Your task to perform on an android device: Go to Maps Image 0: 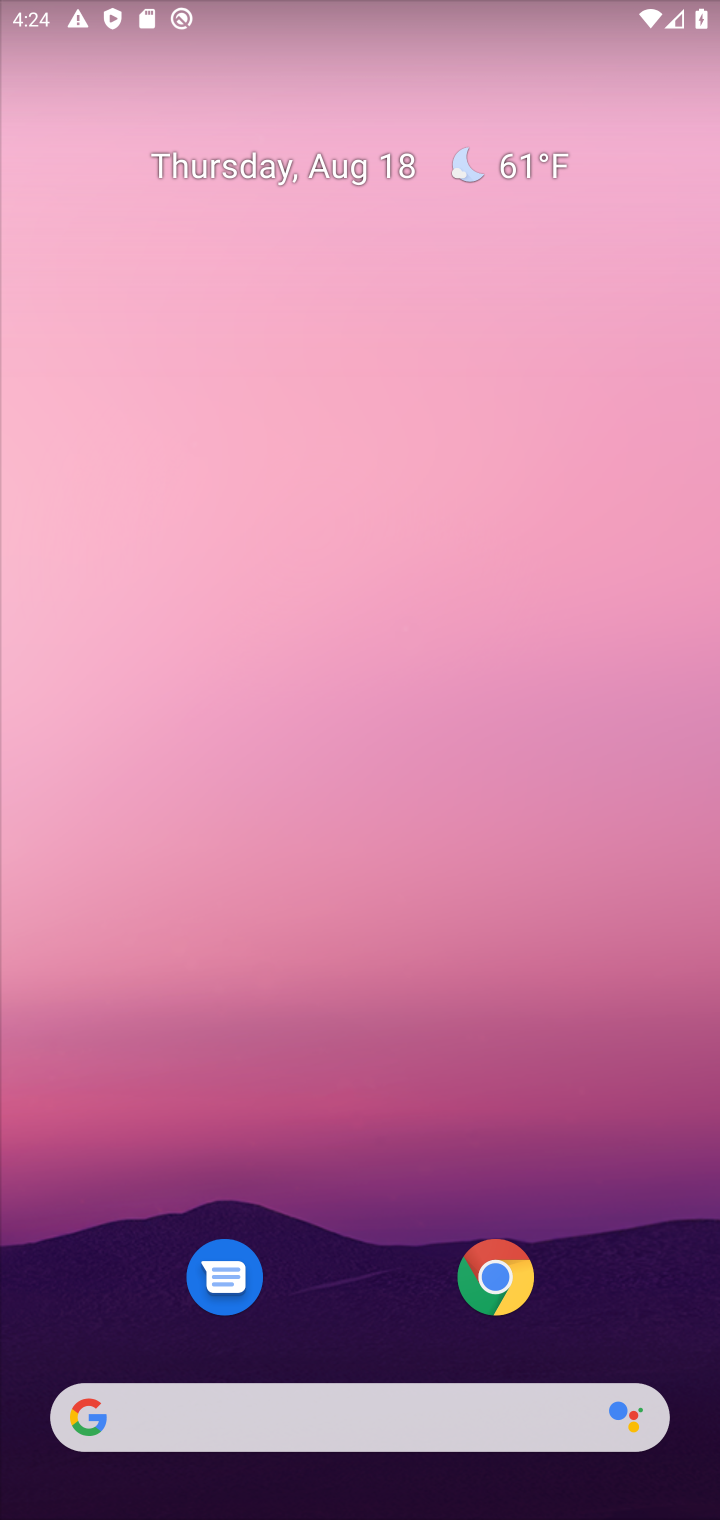
Step 0: drag from (385, 827) to (502, 203)
Your task to perform on an android device: Go to Maps Image 1: 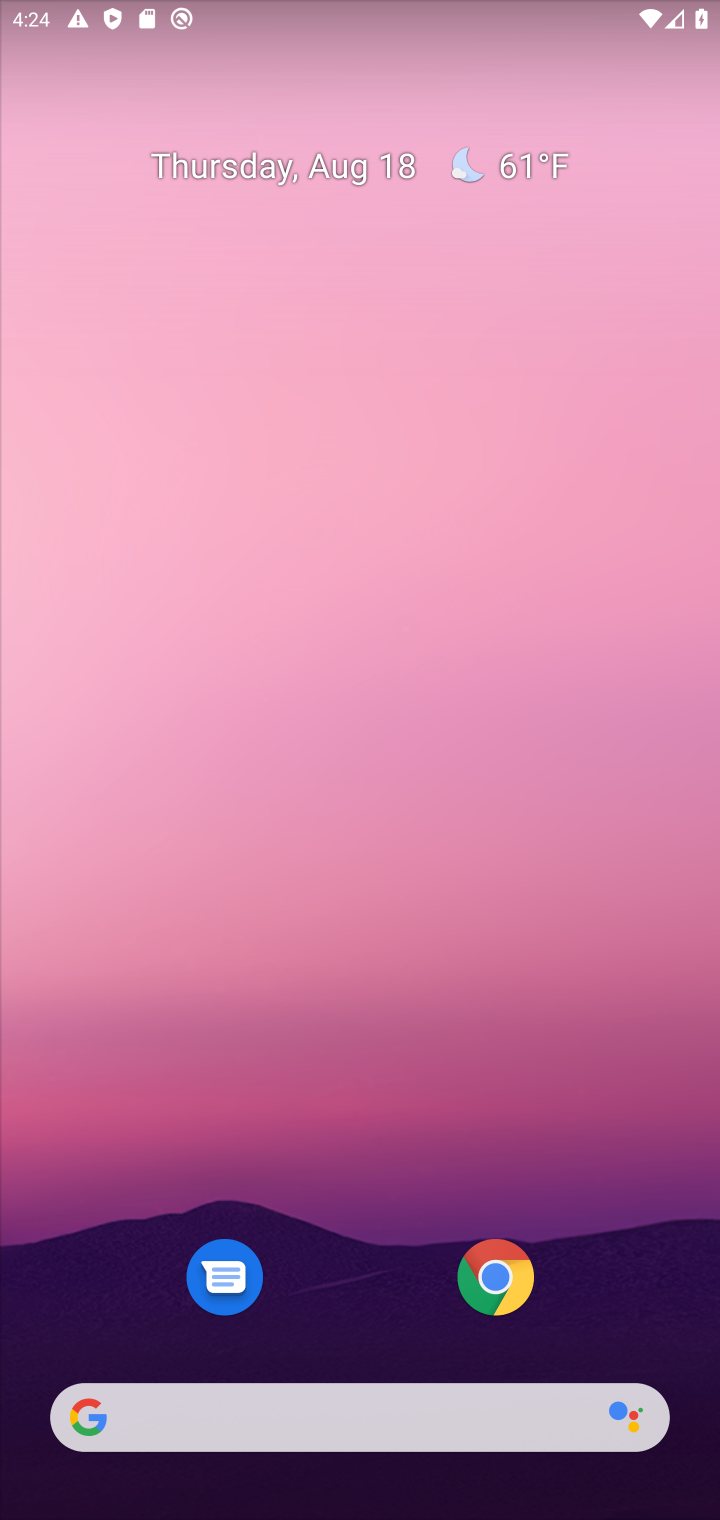
Step 1: drag from (295, 1018) to (584, 242)
Your task to perform on an android device: Go to Maps Image 2: 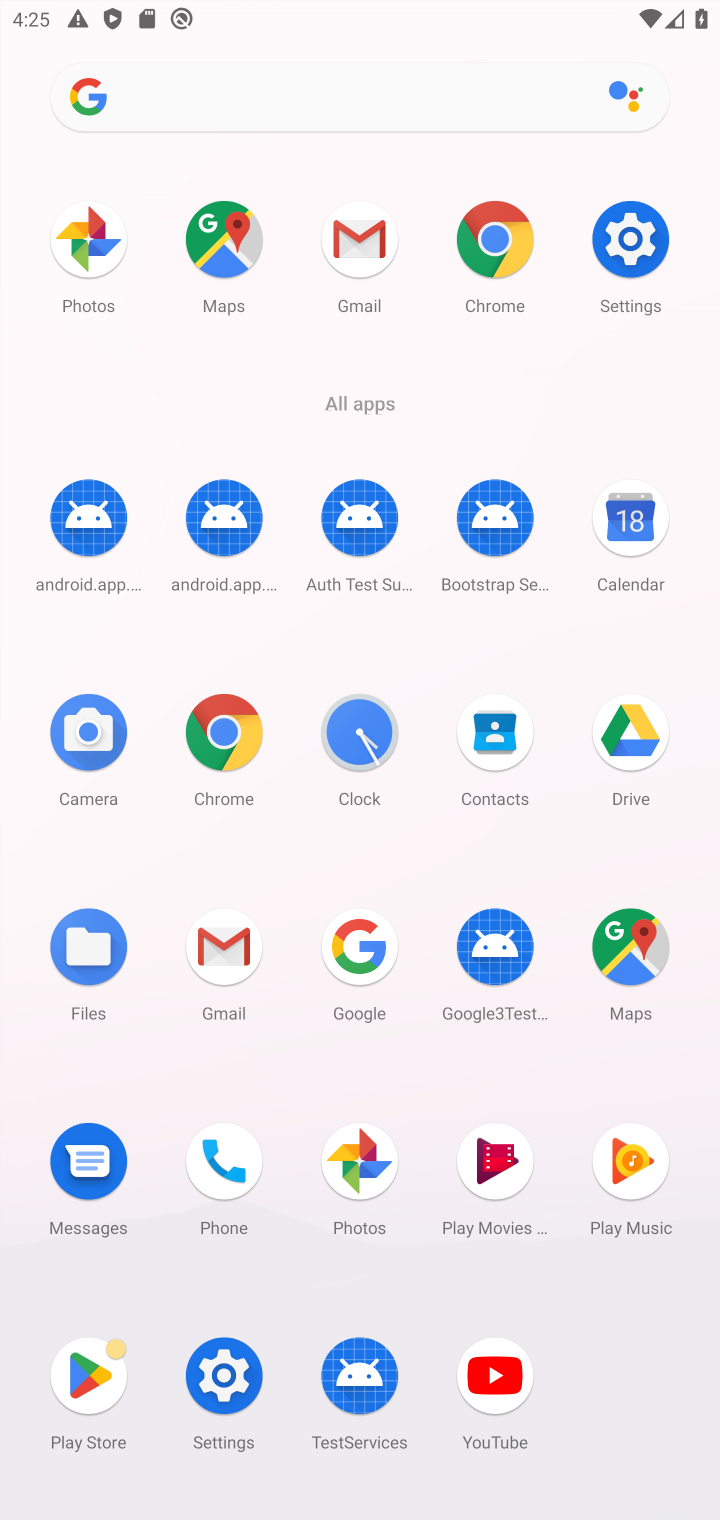
Step 2: click (243, 260)
Your task to perform on an android device: Go to Maps Image 3: 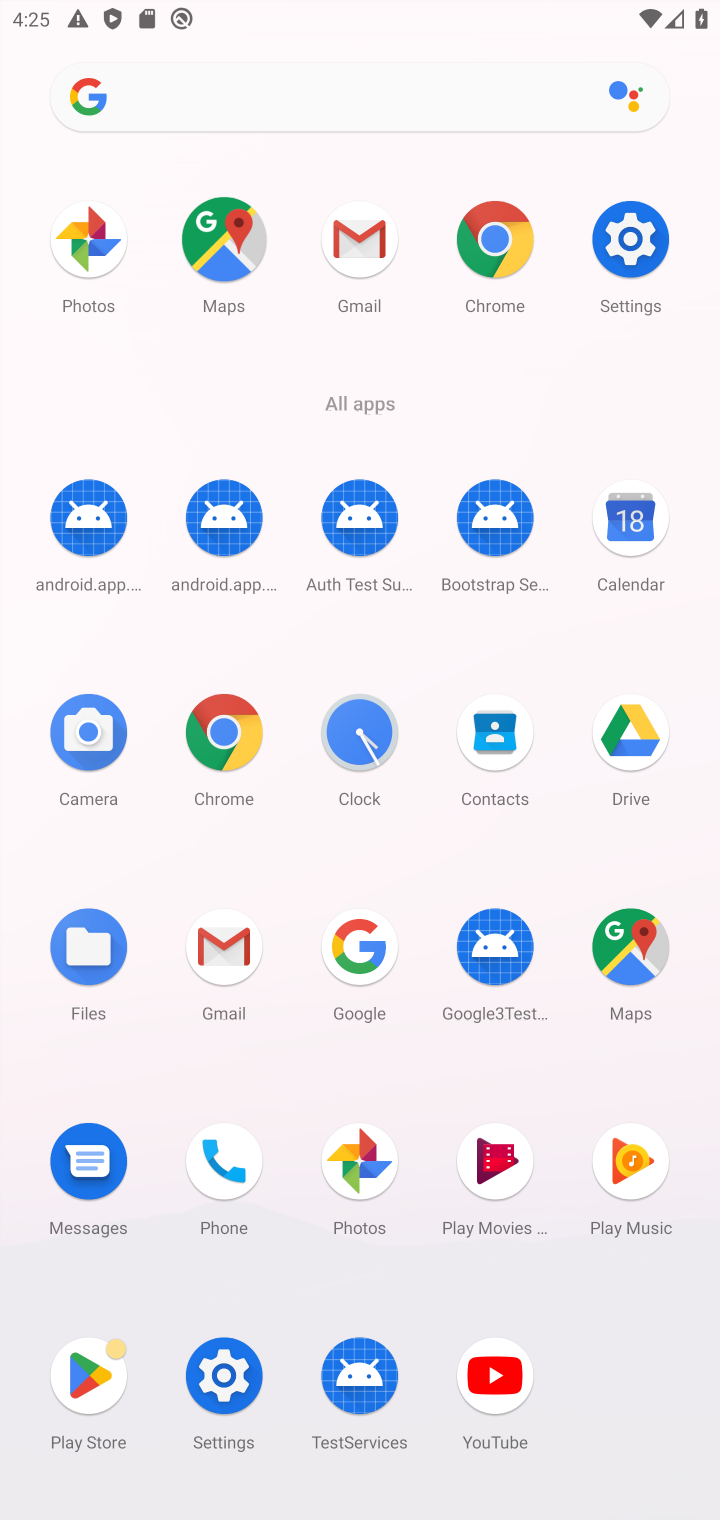
Step 3: task complete